Your task to perform on an android device: set the stopwatch Image 0: 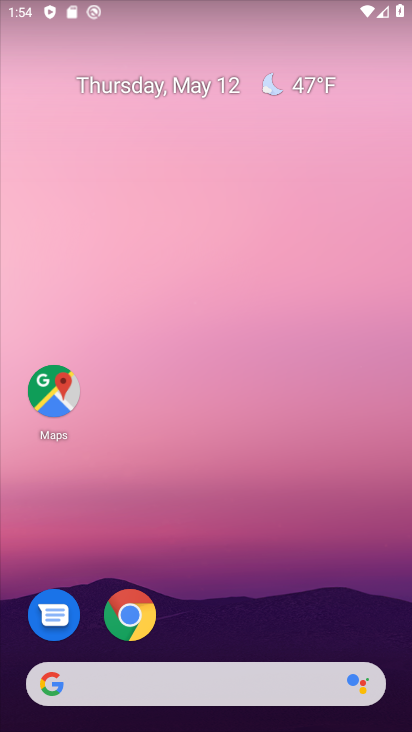
Step 0: drag from (257, 597) to (226, 110)
Your task to perform on an android device: set the stopwatch Image 1: 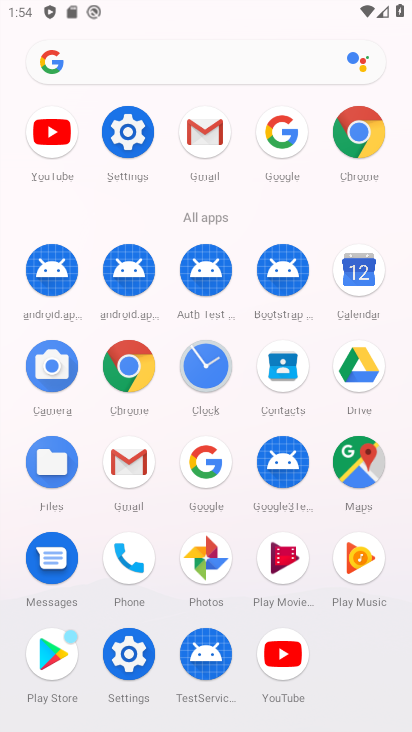
Step 1: click (206, 367)
Your task to perform on an android device: set the stopwatch Image 2: 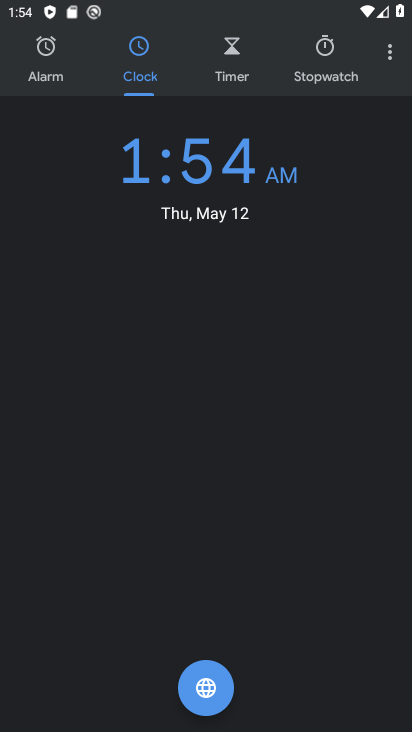
Step 2: click (309, 40)
Your task to perform on an android device: set the stopwatch Image 3: 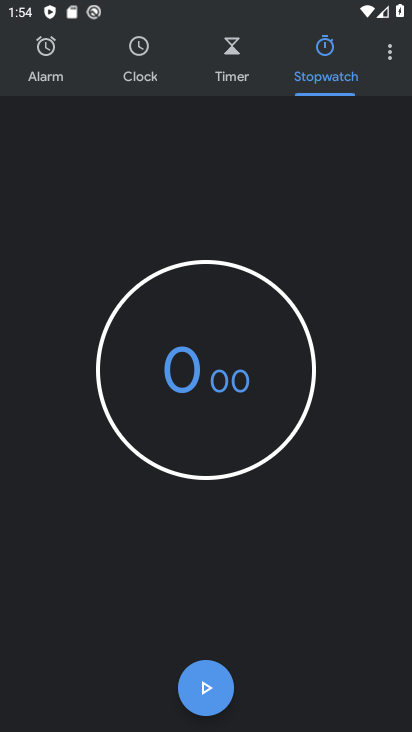
Step 3: click (212, 685)
Your task to perform on an android device: set the stopwatch Image 4: 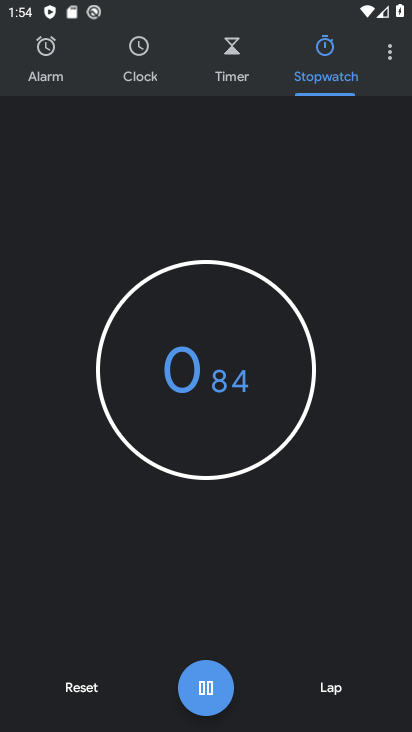
Step 4: click (212, 685)
Your task to perform on an android device: set the stopwatch Image 5: 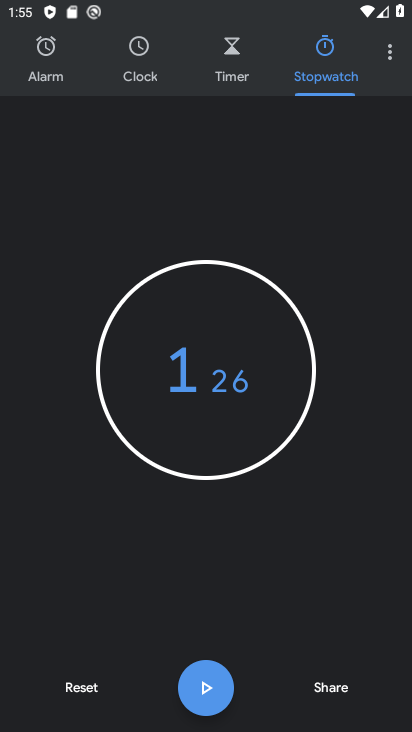
Step 5: task complete